Your task to perform on an android device: open app "Chime – Mobile Banking" (install if not already installed) and go to login screen Image 0: 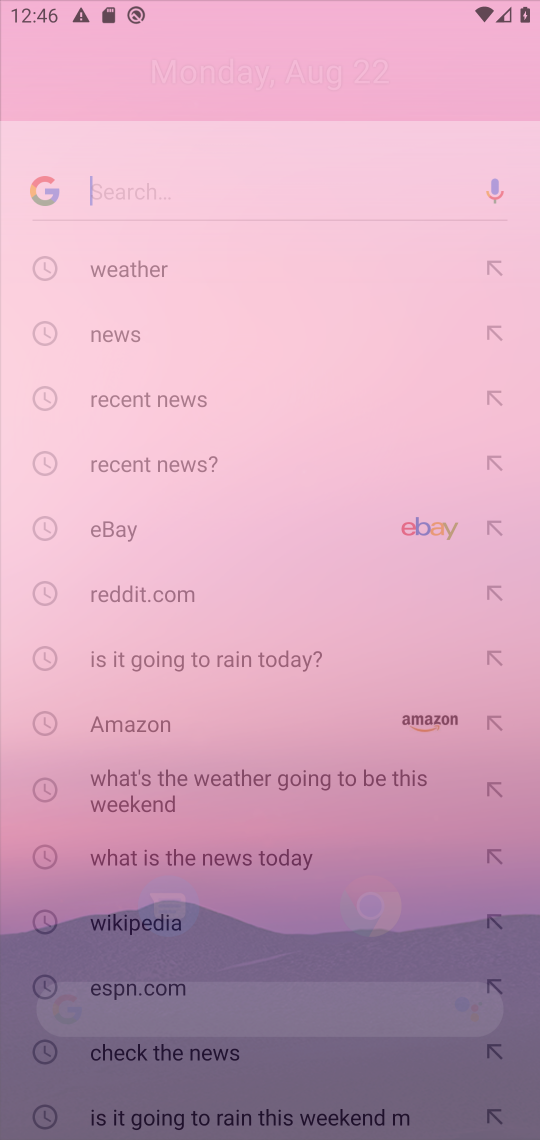
Step 0: press home button
Your task to perform on an android device: open app "Chime – Mobile Banking" (install if not already installed) and go to login screen Image 1: 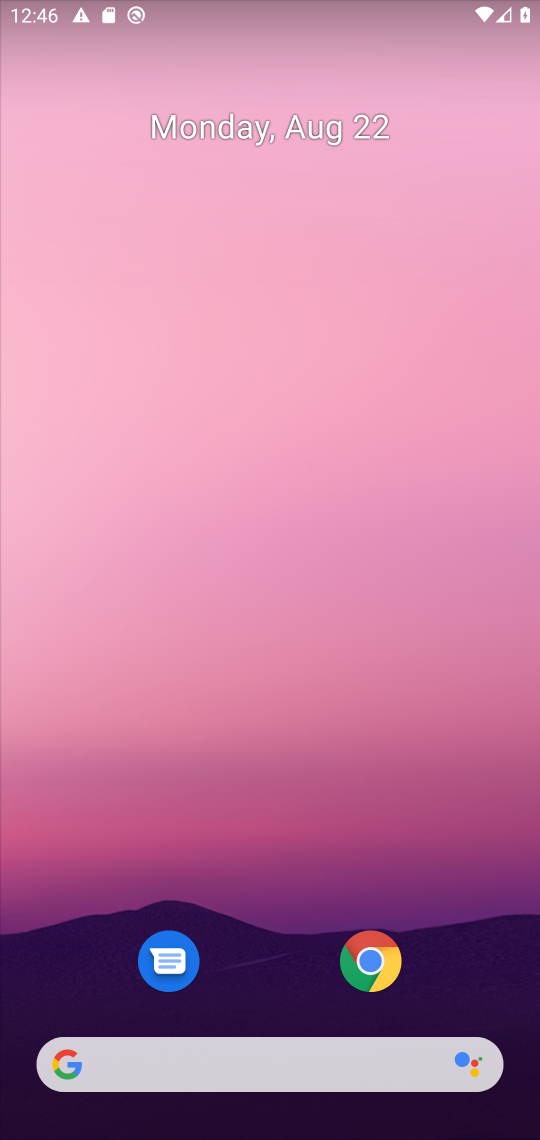
Step 1: drag from (495, 925) to (467, 124)
Your task to perform on an android device: open app "Chime – Mobile Banking" (install if not already installed) and go to login screen Image 2: 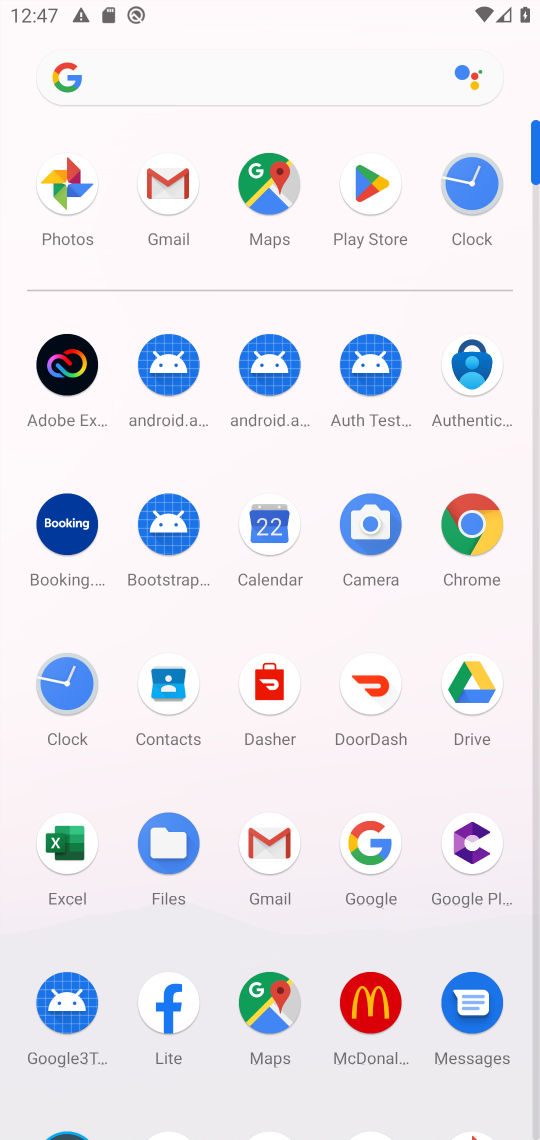
Step 2: click (373, 184)
Your task to perform on an android device: open app "Chime – Mobile Banking" (install if not already installed) and go to login screen Image 3: 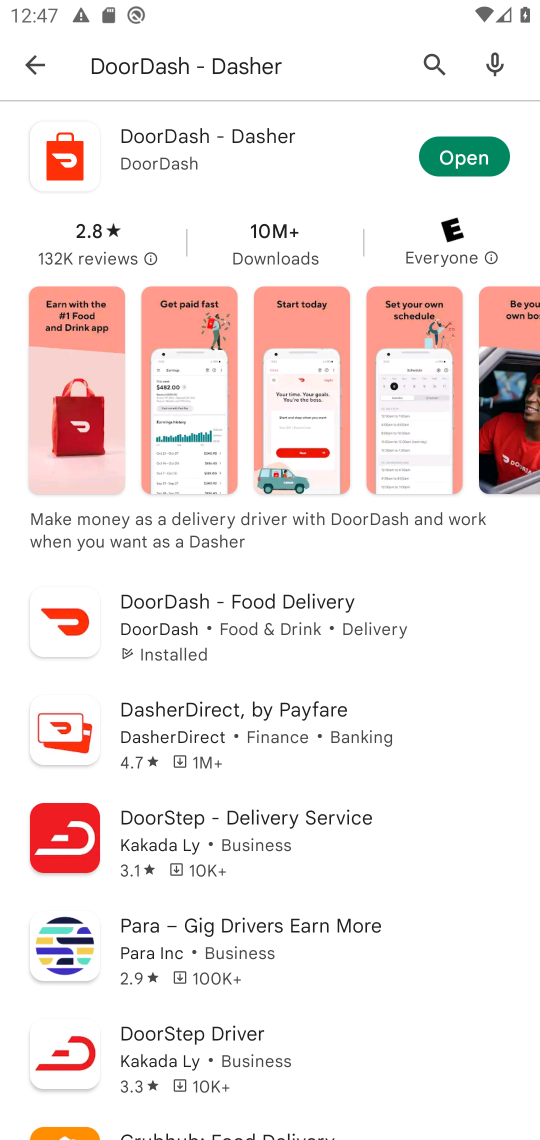
Step 3: press back button
Your task to perform on an android device: open app "Chime – Mobile Banking" (install if not already installed) and go to login screen Image 4: 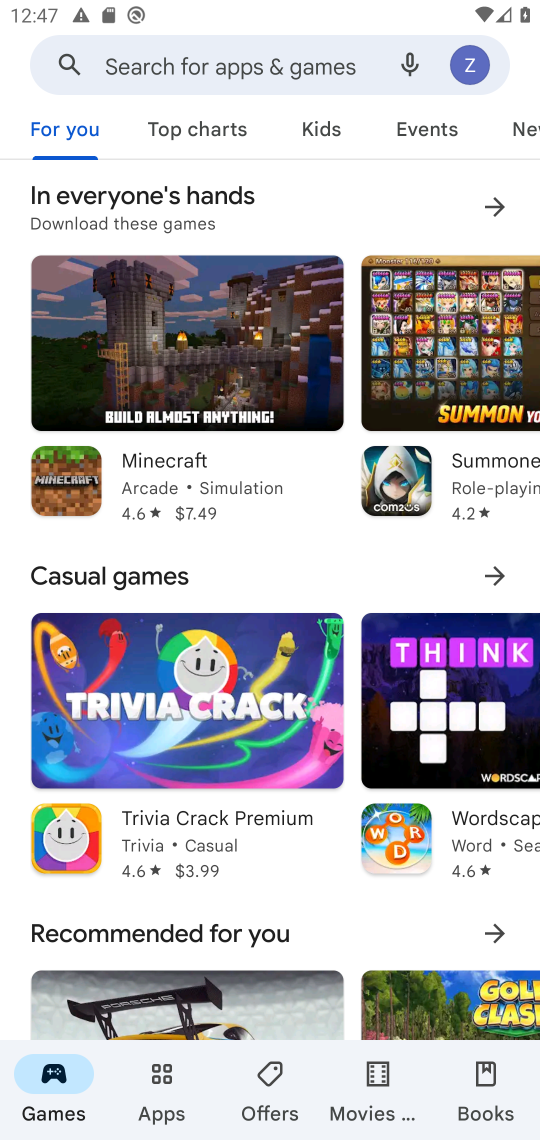
Step 4: click (323, 44)
Your task to perform on an android device: open app "Chime – Mobile Banking" (install if not already installed) and go to login screen Image 5: 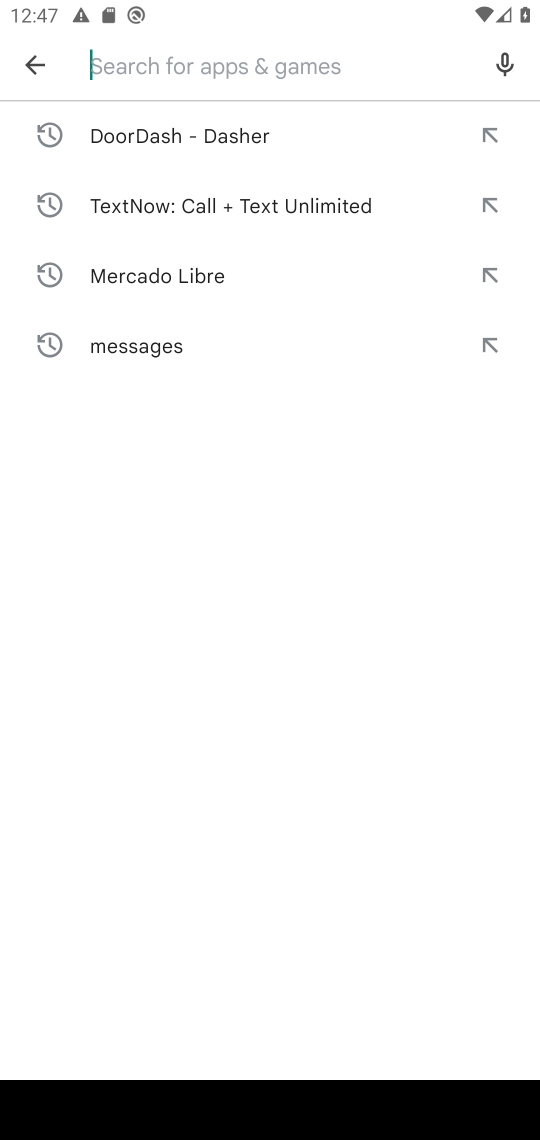
Step 5: type "Chime – Mobile Banking"
Your task to perform on an android device: open app "Chime – Mobile Banking" (install if not already installed) and go to login screen Image 6: 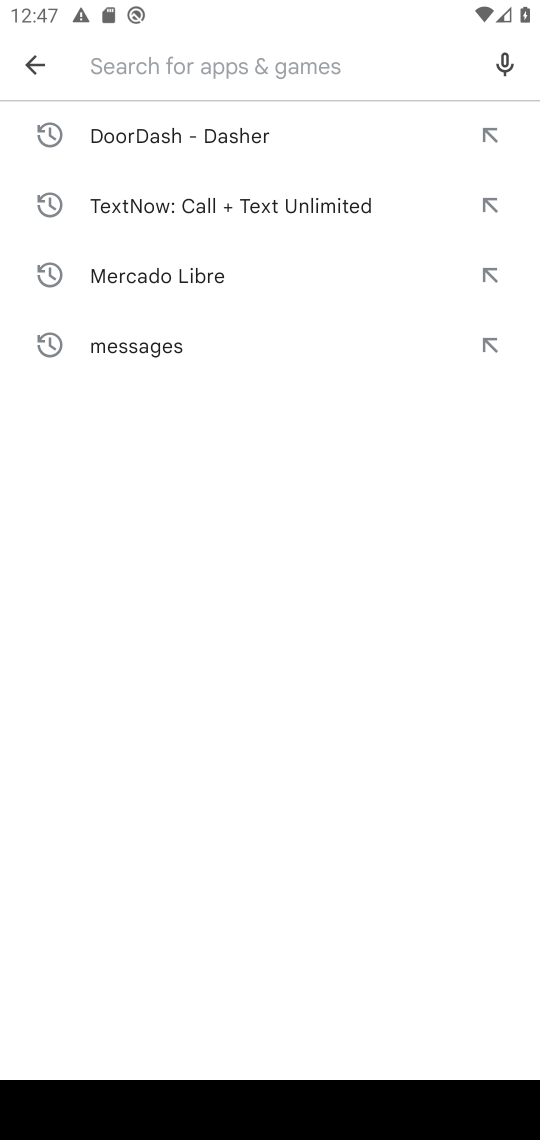
Step 6: press enter
Your task to perform on an android device: open app "Chime – Mobile Banking" (install if not already installed) and go to login screen Image 7: 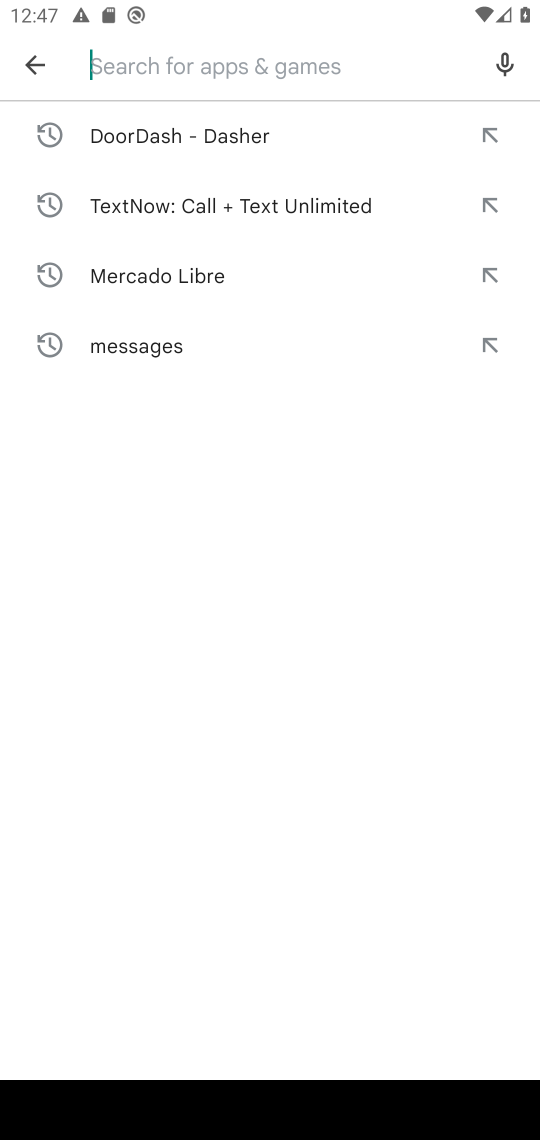
Step 7: type "Chime – Mobile Banking"
Your task to perform on an android device: open app "Chime – Mobile Banking" (install if not already installed) and go to login screen Image 8: 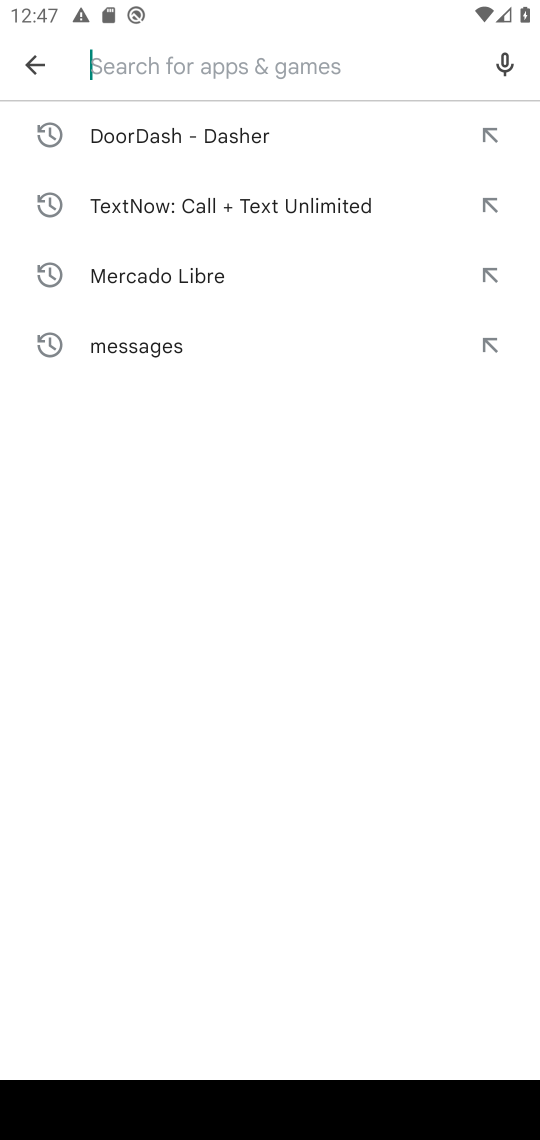
Step 8: task complete